Your task to perform on an android device: visit the assistant section in the google photos Image 0: 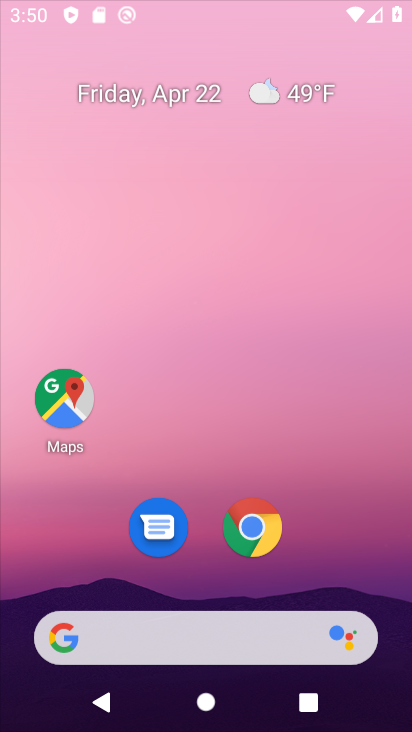
Step 0: drag from (345, 586) to (314, 249)
Your task to perform on an android device: visit the assistant section in the google photos Image 1: 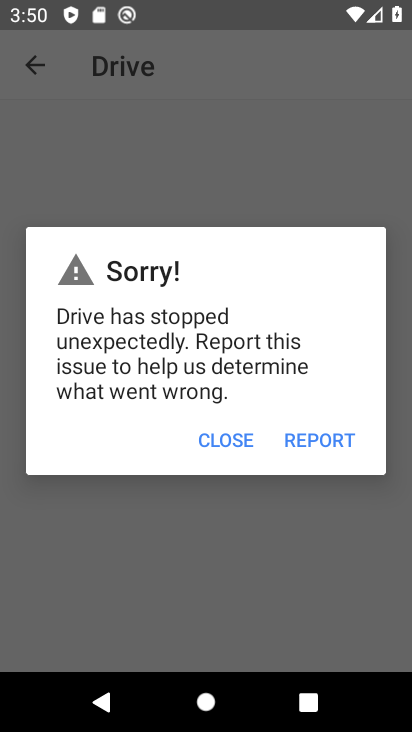
Step 1: press home button
Your task to perform on an android device: visit the assistant section in the google photos Image 2: 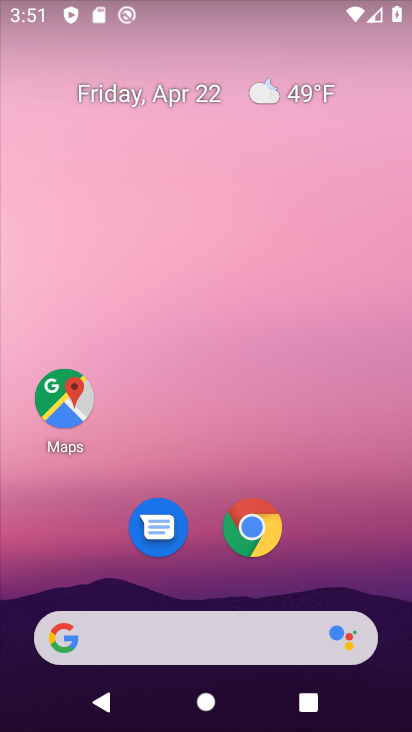
Step 2: drag from (335, 572) to (253, 63)
Your task to perform on an android device: visit the assistant section in the google photos Image 3: 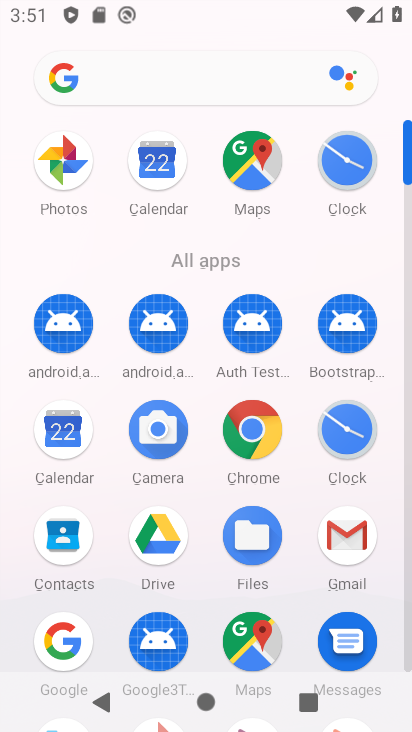
Step 3: click (57, 170)
Your task to perform on an android device: visit the assistant section in the google photos Image 4: 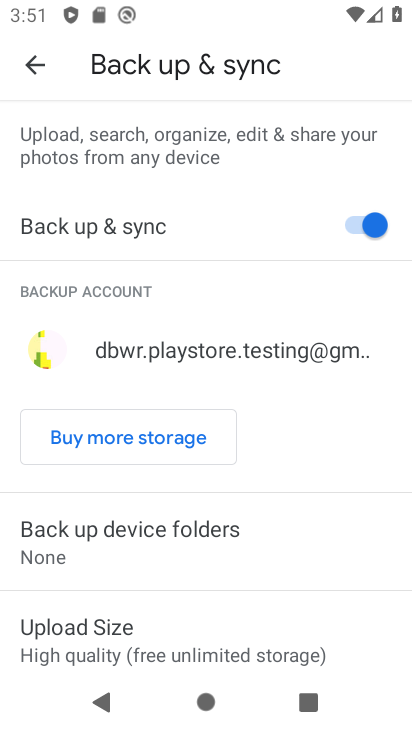
Step 4: drag from (171, 614) to (178, 392)
Your task to perform on an android device: visit the assistant section in the google photos Image 5: 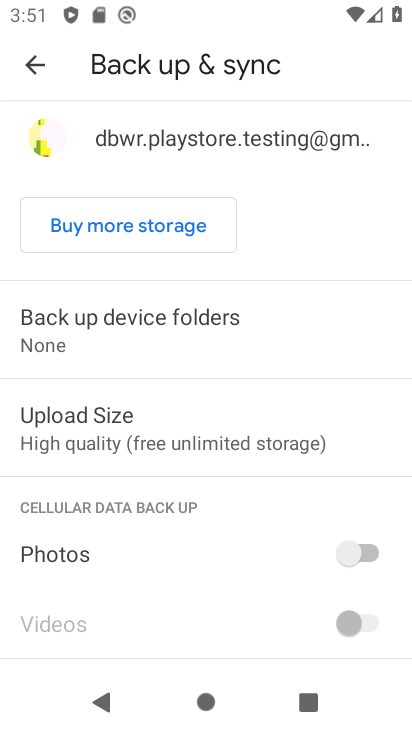
Step 5: click (34, 55)
Your task to perform on an android device: visit the assistant section in the google photos Image 6: 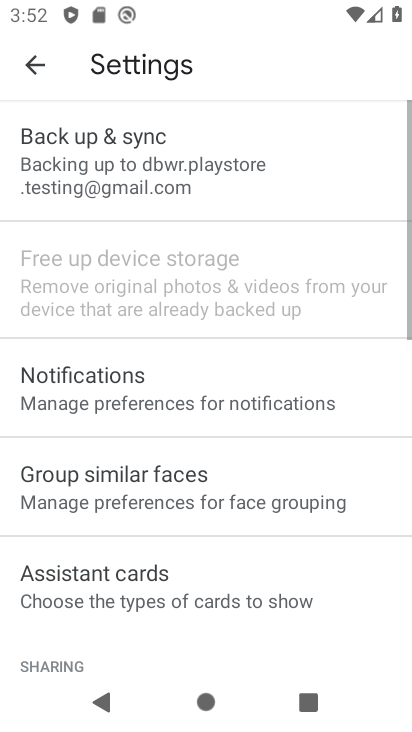
Step 6: click (42, 72)
Your task to perform on an android device: visit the assistant section in the google photos Image 7: 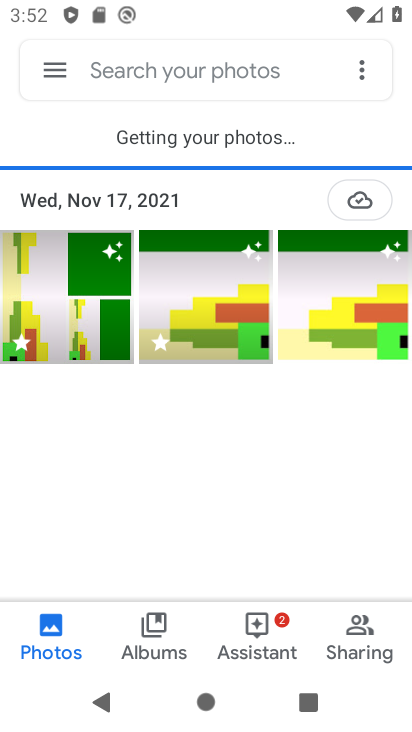
Step 7: click (269, 635)
Your task to perform on an android device: visit the assistant section in the google photos Image 8: 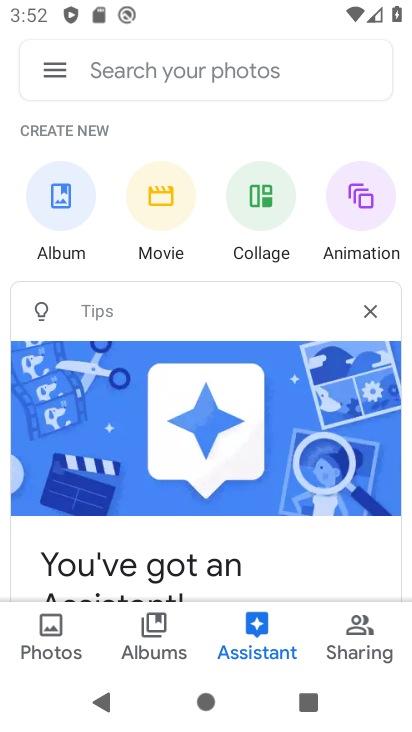
Step 8: task complete